Your task to perform on an android device: Open maps Image 0: 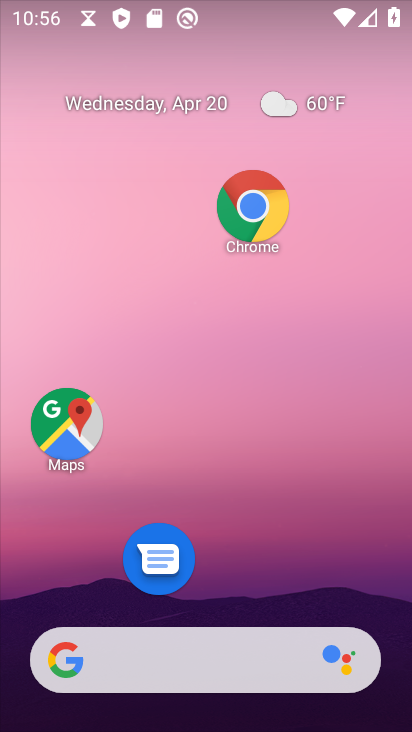
Step 0: drag from (140, 607) to (179, 13)
Your task to perform on an android device: Open maps Image 1: 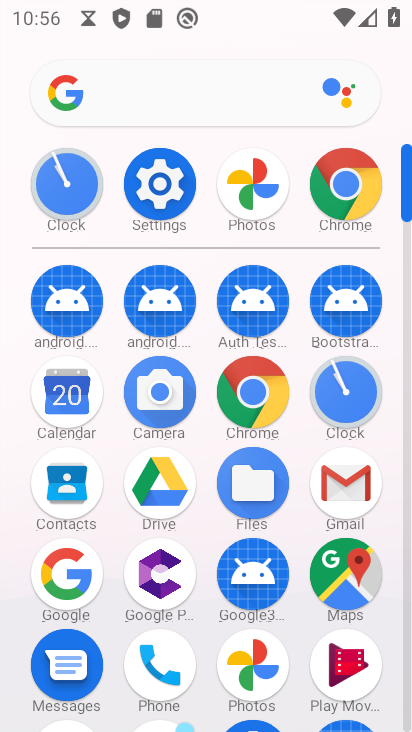
Step 1: click (343, 582)
Your task to perform on an android device: Open maps Image 2: 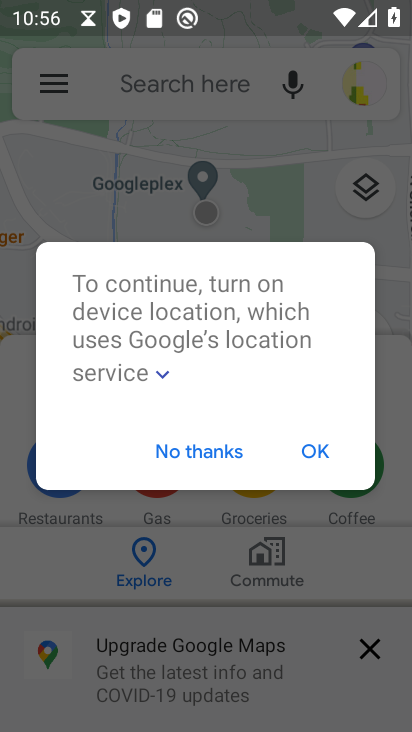
Step 2: click (214, 468)
Your task to perform on an android device: Open maps Image 3: 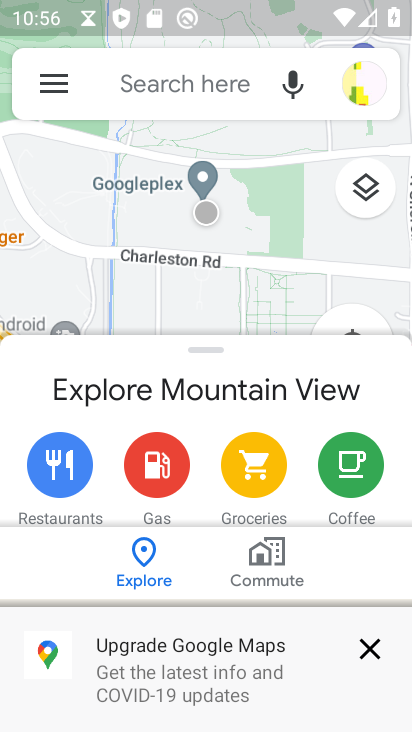
Step 3: task complete